Your task to perform on an android device: Open the web browser Image 0: 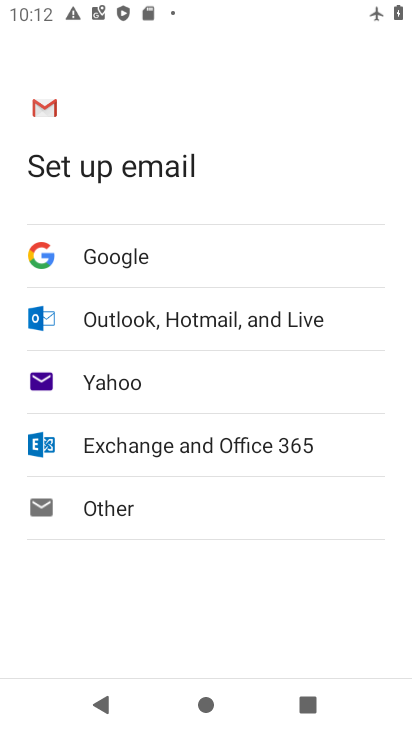
Step 0: press home button
Your task to perform on an android device: Open the web browser Image 1: 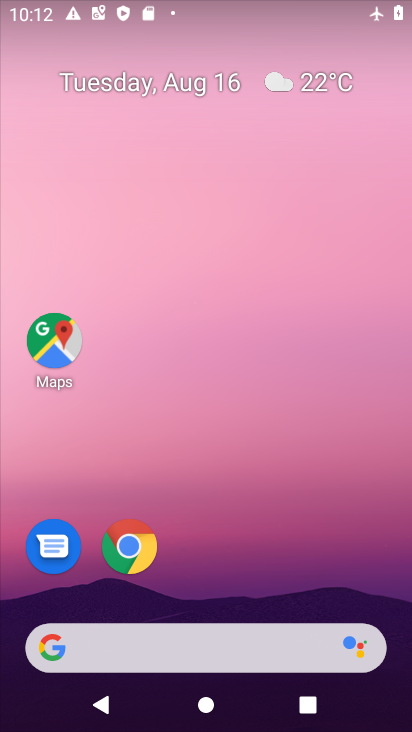
Step 1: click (242, 653)
Your task to perform on an android device: Open the web browser Image 2: 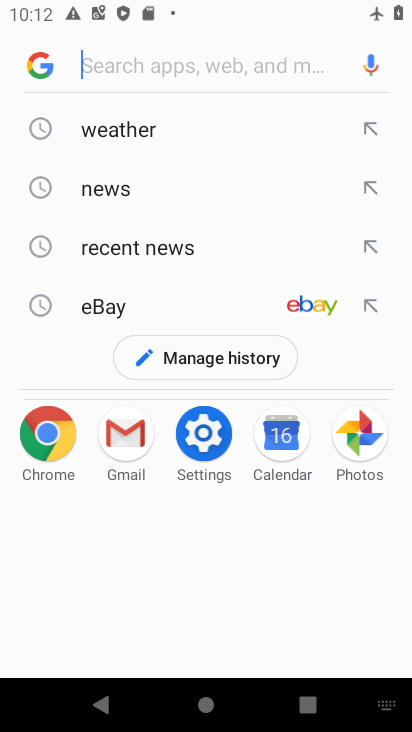
Step 2: task complete